Your task to perform on an android device: Open Youtube and go to the subscriptions tab Image 0: 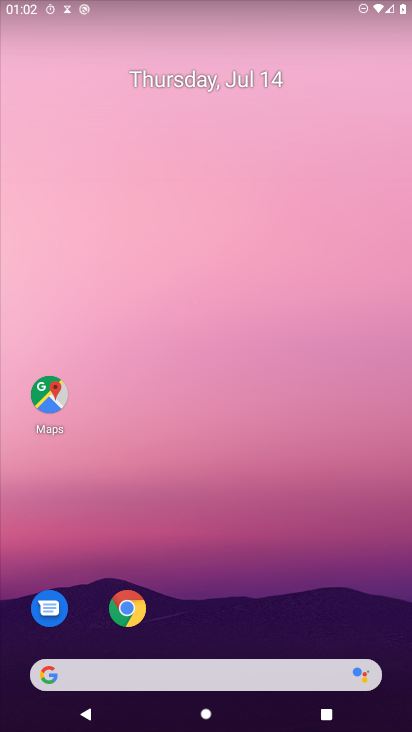
Step 0: press home button
Your task to perform on an android device: Open Youtube and go to the subscriptions tab Image 1: 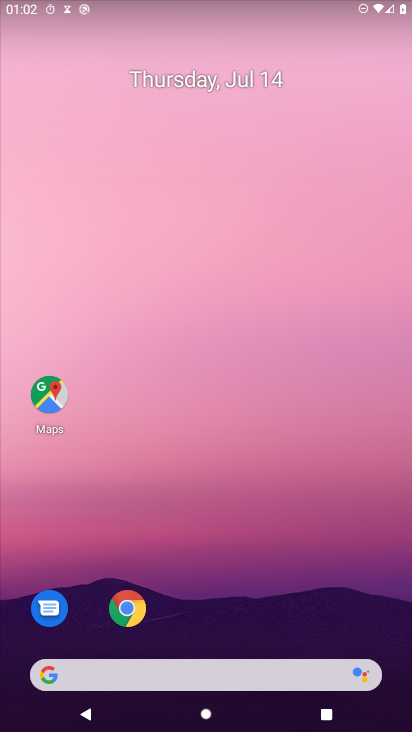
Step 1: drag from (230, 618) to (359, 18)
Your task to perform on an android device: Open Youtube and go to the subscriptions tab Image 2: 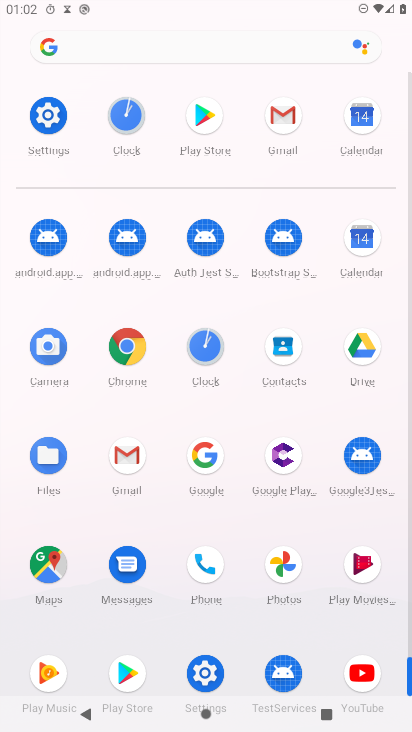
Step 2: click (349, 675)
Your task to perform on an android device: Open Youtube and go to the subscriptions tab Image 3: 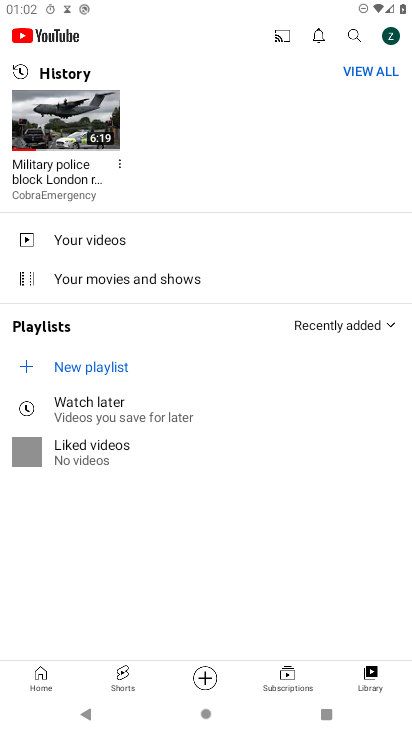
Step 3: click (286, 675)
Your task to perform on an android device: Open Youtube and go to the subscriptions tab Image 4: 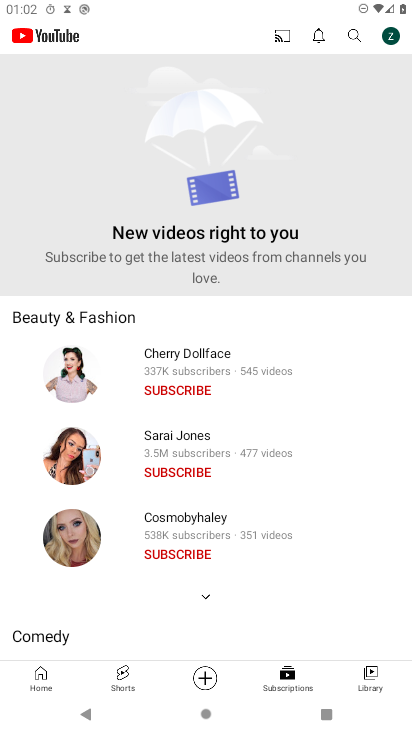
Step 4: task complete